Your task to perform on an android device: Go to Wikipedia Image 0: 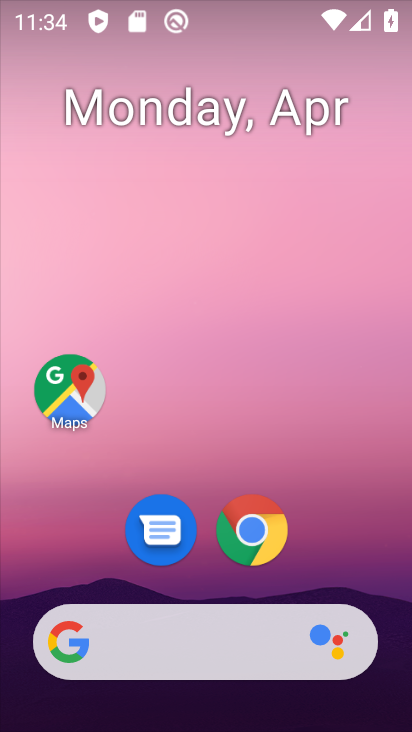
Step 0: click (254, 539)
Your task to perform on an android device: Go to Wikipedia Image 1: 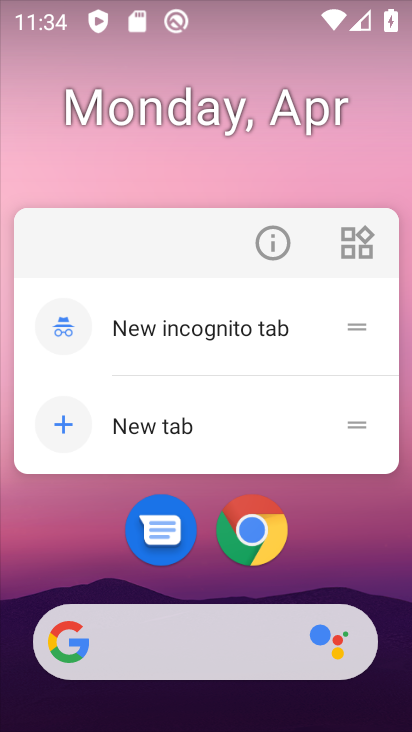
Step 1: click (252, 526)
Your task to perform on an android device: Go to Wikipedia Image 2: 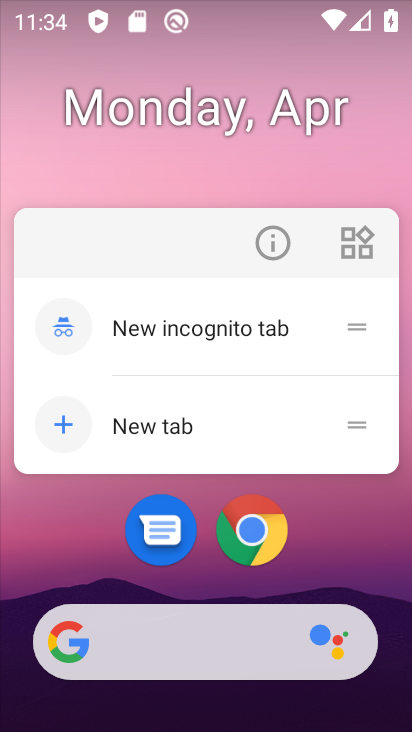
Step 2: click (261, 535)
Your task to perform on an android device: Go to Wikipedia Image 3: 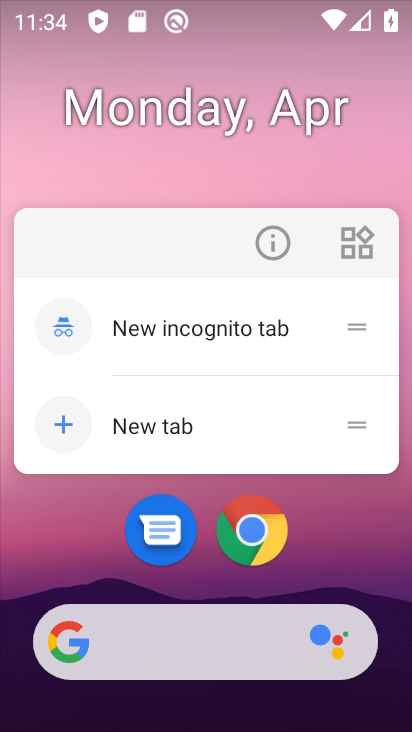
Step 3: click (245, 524)
Your task to perform on an android device: Go to Wikipedia Image 4: 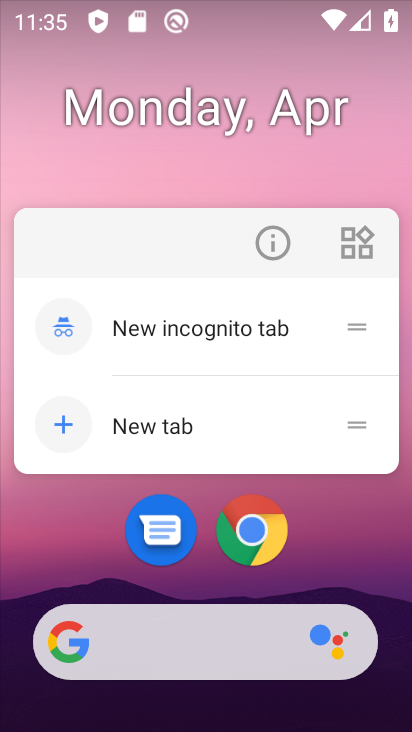
Step 4: click (249, 535)
Your task to perform on an android device: Go to Wikipedia Image 5: 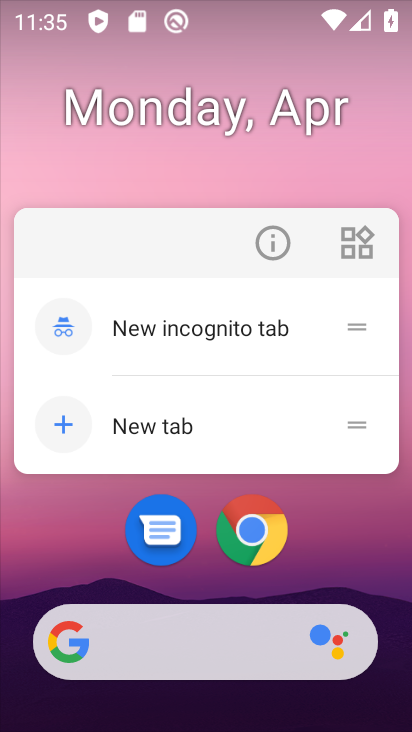
Step 5: click (254, 526)
Your task to perform on an android device: Go to Wikipedia Image 6: 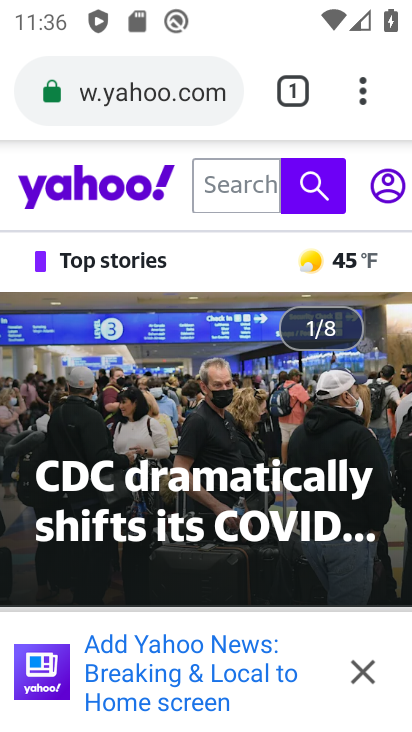
Step 6: click (285, 87)
Your task to perform on an android device: Go to Wikipedia Image 7: 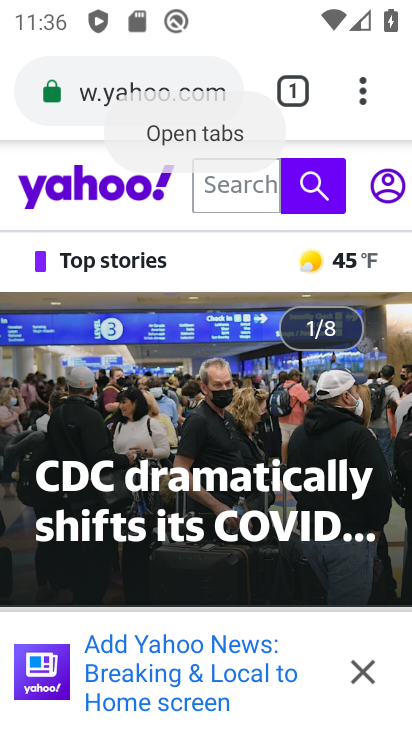
Step 7: click (298, 88)
Your task to perform on an android device: Go to Wikipedia Image 8: 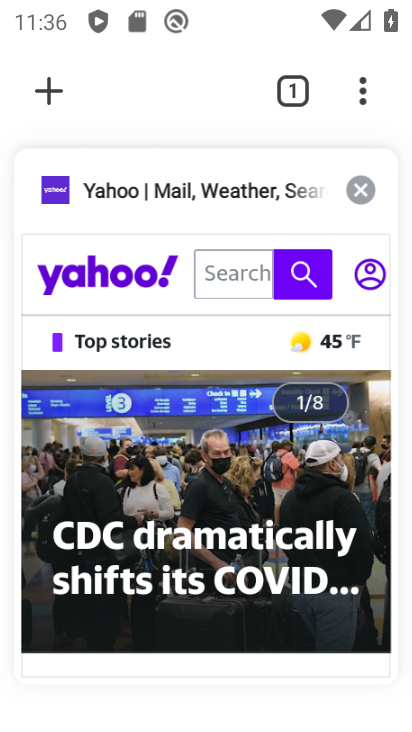
Step 8: click (54, 88)
Your task to perform on an android device: Go to Wikipedia Image 9: 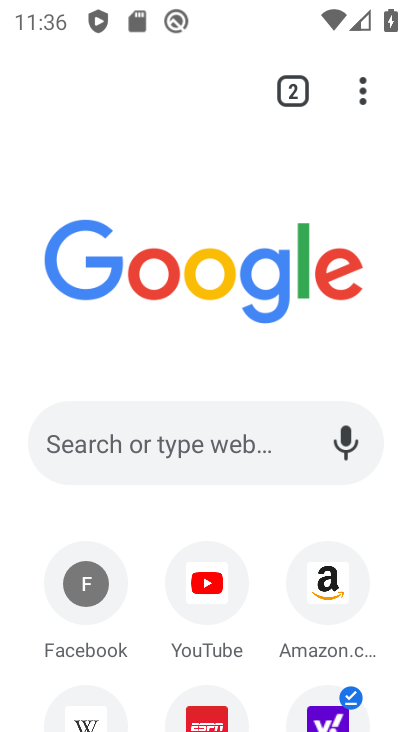
Step 9: click (92, 710)
Your task to perform on an android device: Go to Wikipedia Image 10: 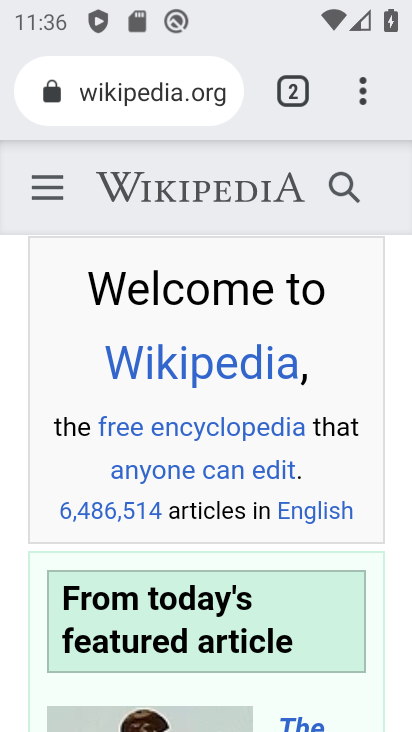
Step 10: task complete